Your task to perform on an android device: stop showing notifications on the lock screen Image 0: 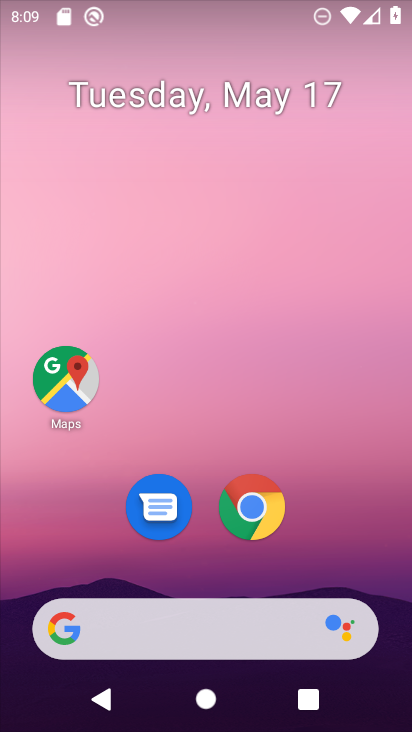
Step 0: drag from (365, 573) to (393, 19)
Your task to perform on an android device: stop showing notifications on the lock screen Image 1: 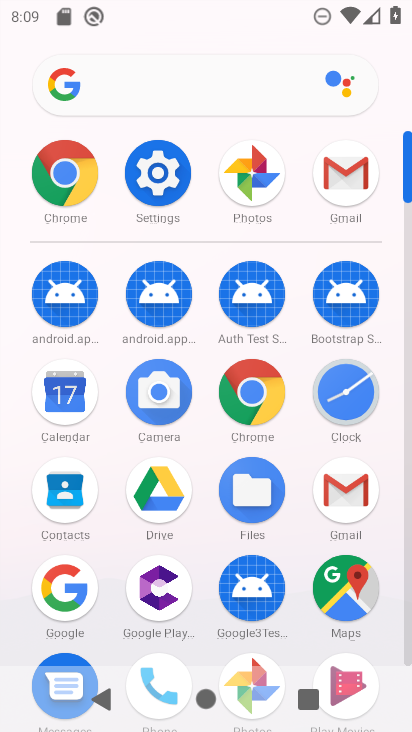
Step 1: click (151, 179)
Your task to perform on an android device: stop showing notifications on the lock screen Image 2: 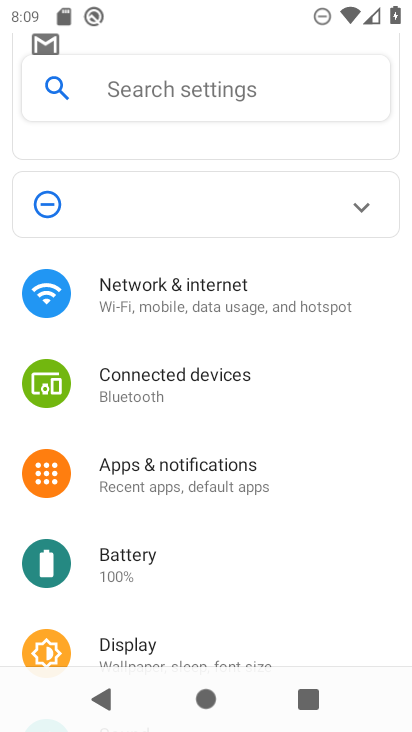
Step 2: click (163, 472)
Your task to perform on an android device: stop showing notifications on the lock screen Image 3: 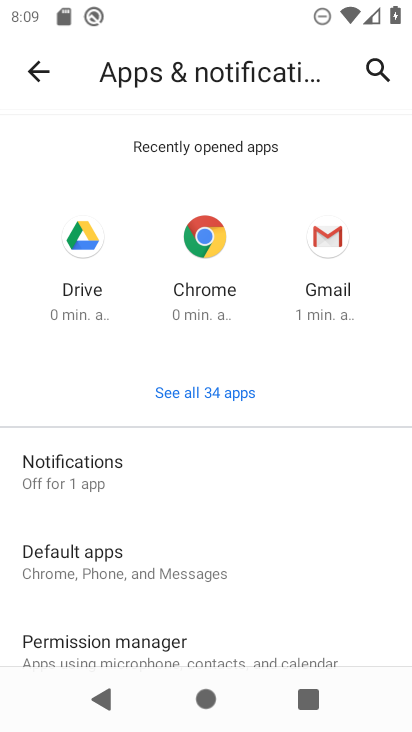
Step 3: click (61, 482)
Your task to perform on an android device: stop showing notifications on the lock screen Image 4: 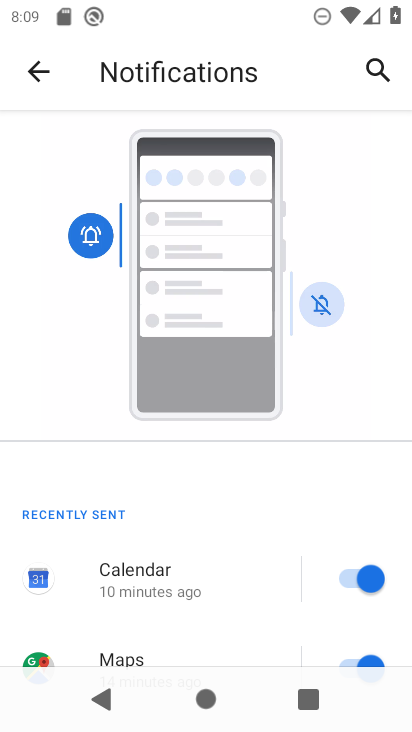
Step 4: drag from (208, 575) to (222, 113)
Your task to perform on an android device: stop showing notifications on the lock screen Image 5: 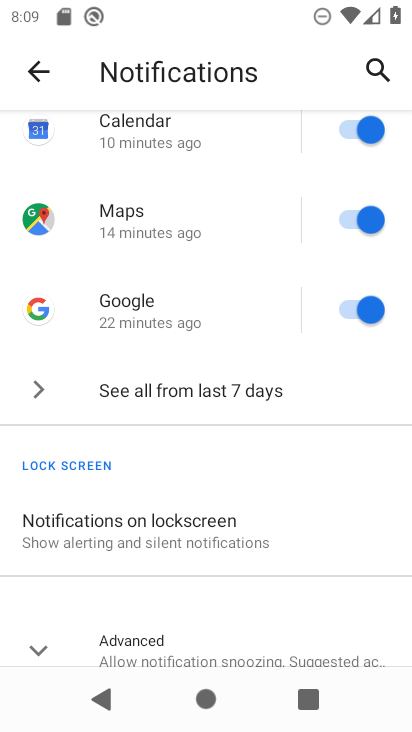
Step 5: drag from (159, 506) to (154, 204)
Your task to perform on an android device: stop showing notifications on the lock screen Image 6: 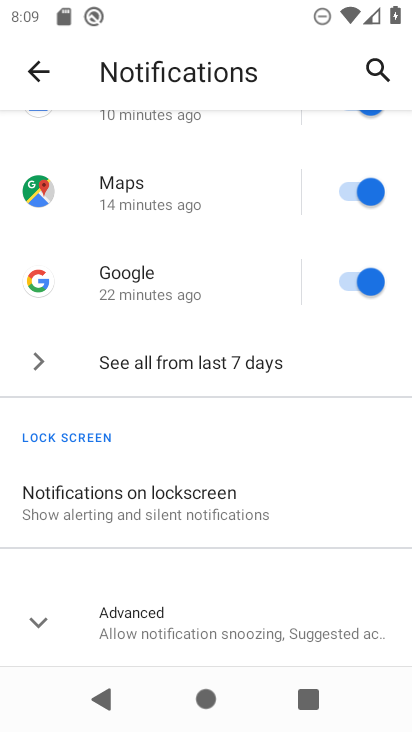
Step 6: click (90, 501)
Your task to perform on an android device: stop showing notifications on the lock screen Image 7: 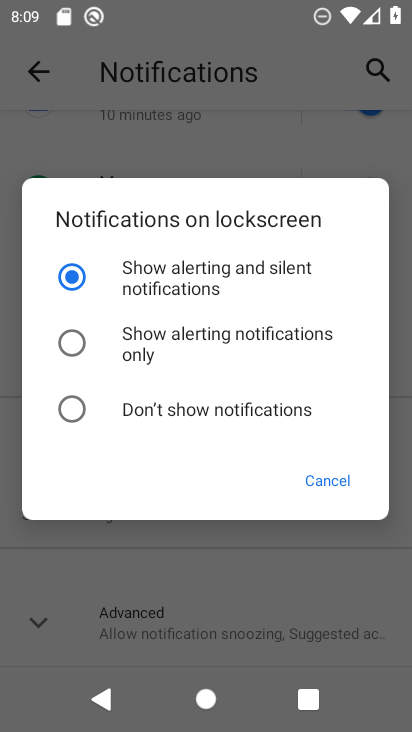
Step 7: click (64, 398)
Your task to perform on an android device: stop showing notifications on the lock screen Image 8: 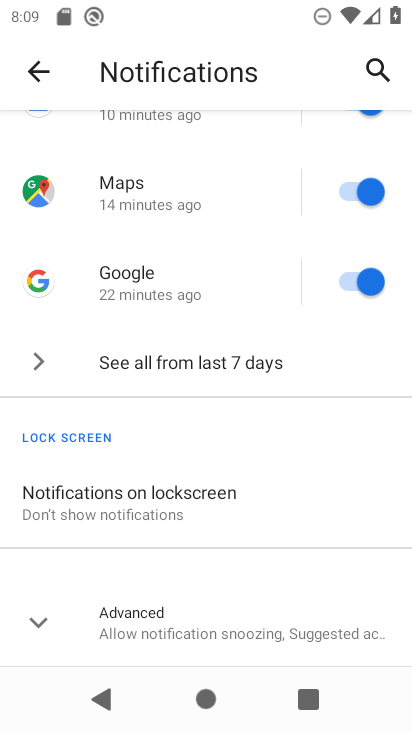
Step 8: task complete